Your task to perform on an android device: change notifications settings Image 0: 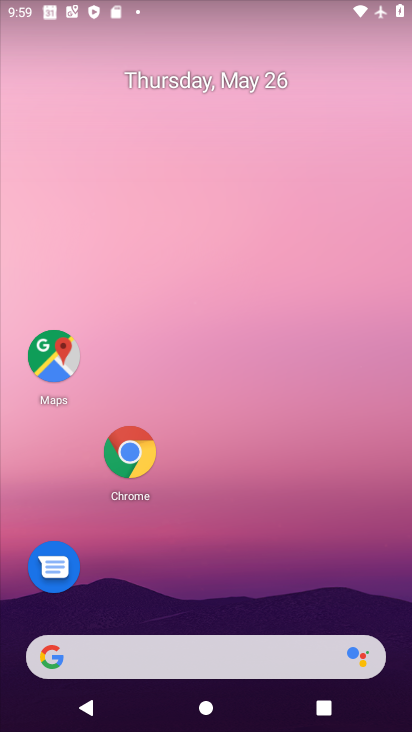
Step 0: press home button
Your task to perform on an android device: change notifications settings Image 1: 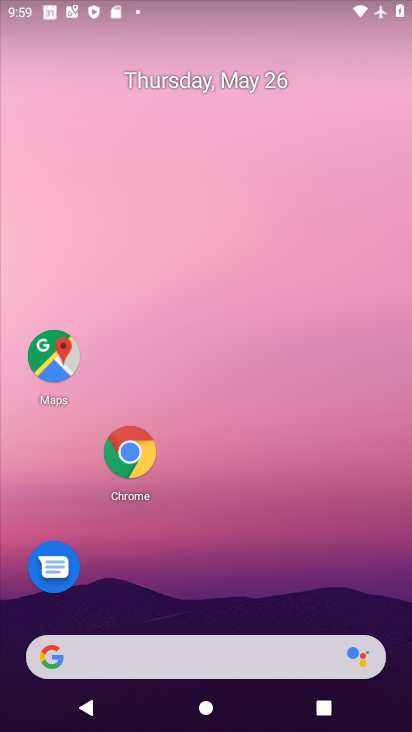
Step 1: drag from (204, 658) to (308, 112)
Your task to perform on an android device: change notifications settings Image 2: 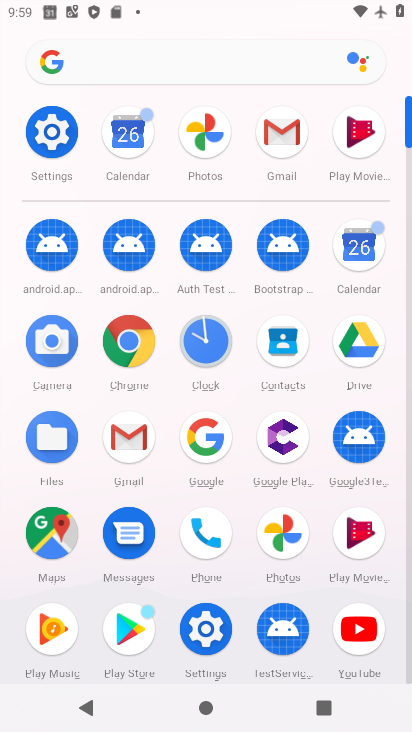
Step 2: click (57, 136)
Your task to perform on an android device: change notifications settings Image 3: 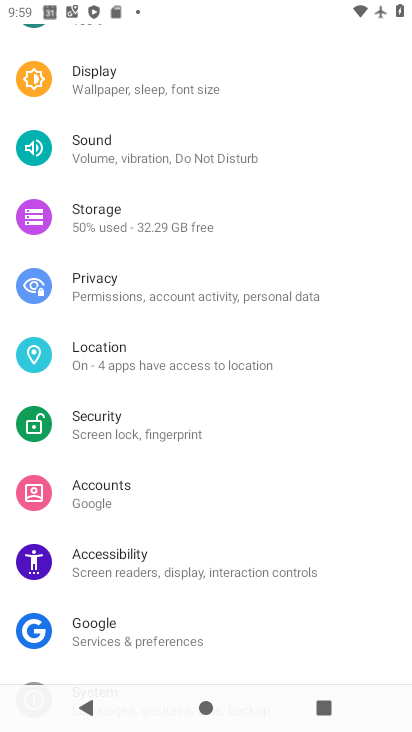
Step 3: drag from (306, 118) to (258, 505)
Your task to perform on an android device: change notifications settings Image 4: 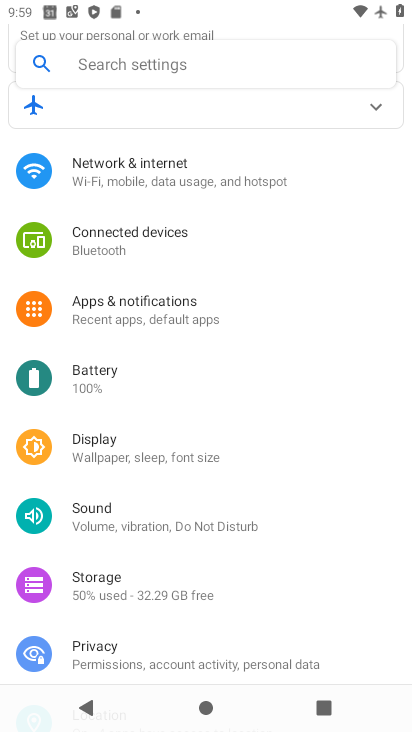
Step 4: click (161, 312)
Your task to perform on an android device: change notifications settings Image 5: 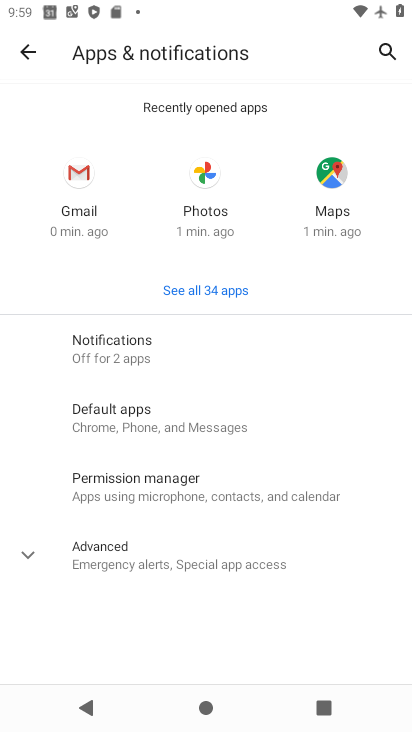
Step 5: click (129, 357)
Your task to perform on an android device: change notifications settings Image 6: 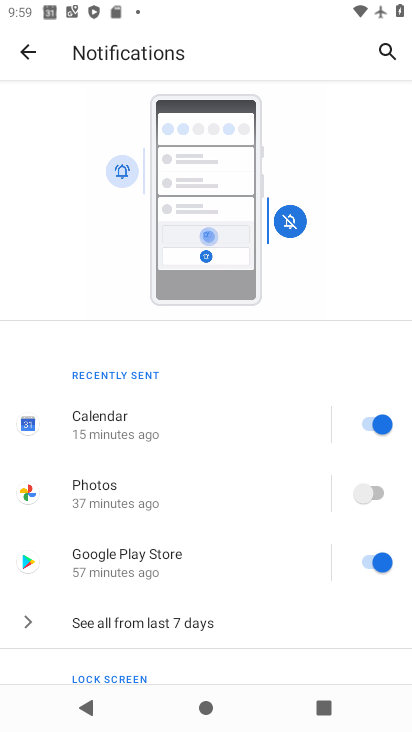
Step 6: drag from (227, 584) to (309, 314)
Your task to perform on an android device: change notifications settings Image 7: 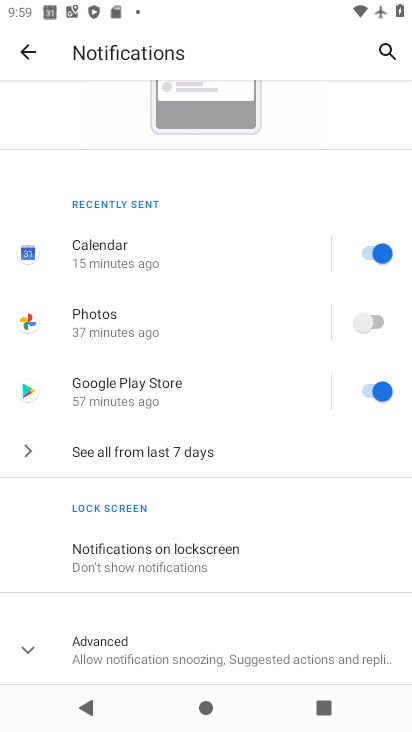
Step 7: click (381, 323)
Your task to perform on an android device: change notifications settings Image 8: 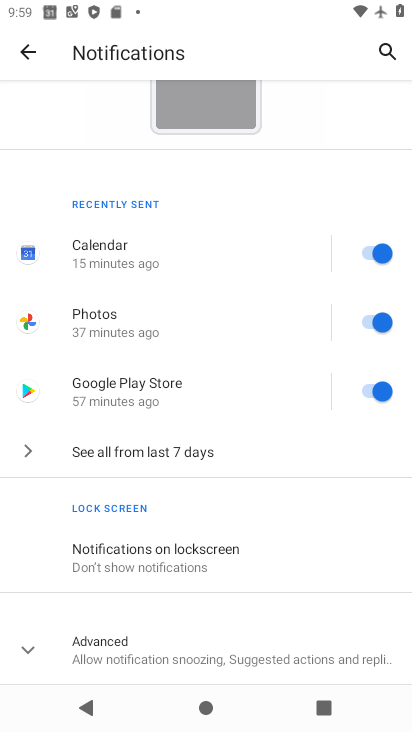
Step 8: task complete